Your task to perform on an android device: open app "Duolingo: language lessons" Image 0: 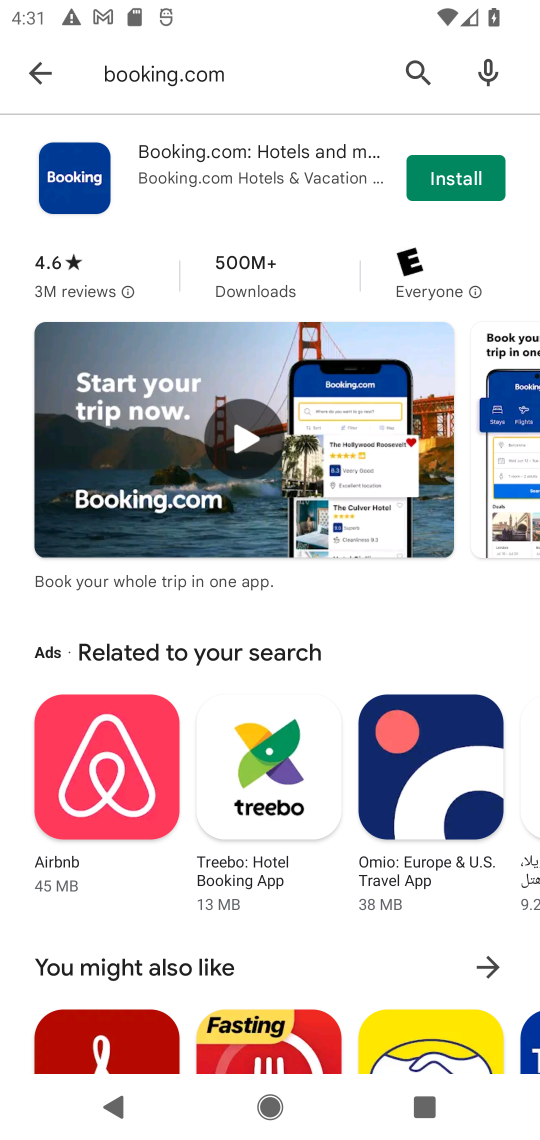
Step 0: press home button
Your task to perform on an android device: open app "Duolingo: language lessons" Image 1: 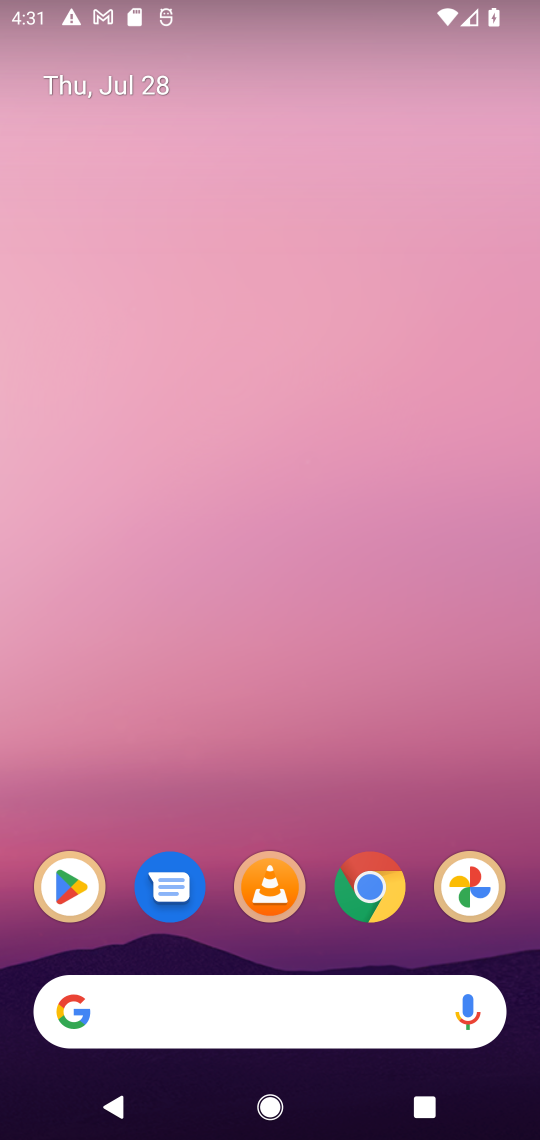
Step 1: click (53, 884)
Your task to perform on an android device: open app "Duolingo: language lessons" Image 2: 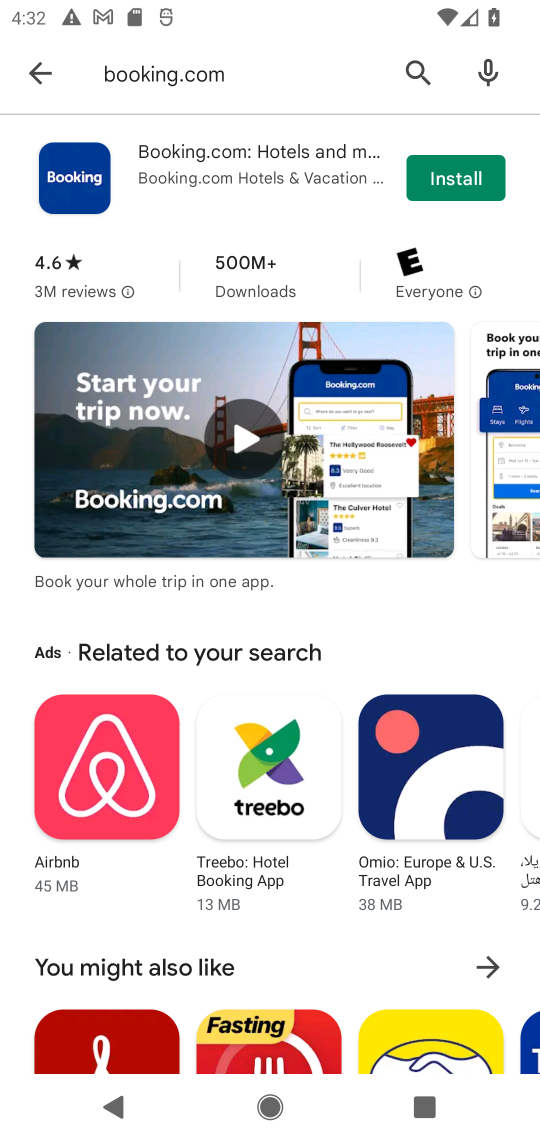
Step 2: click (28, 60)
Your task to perform on an android device: open app "Duolingo: language lessons" Image 3: 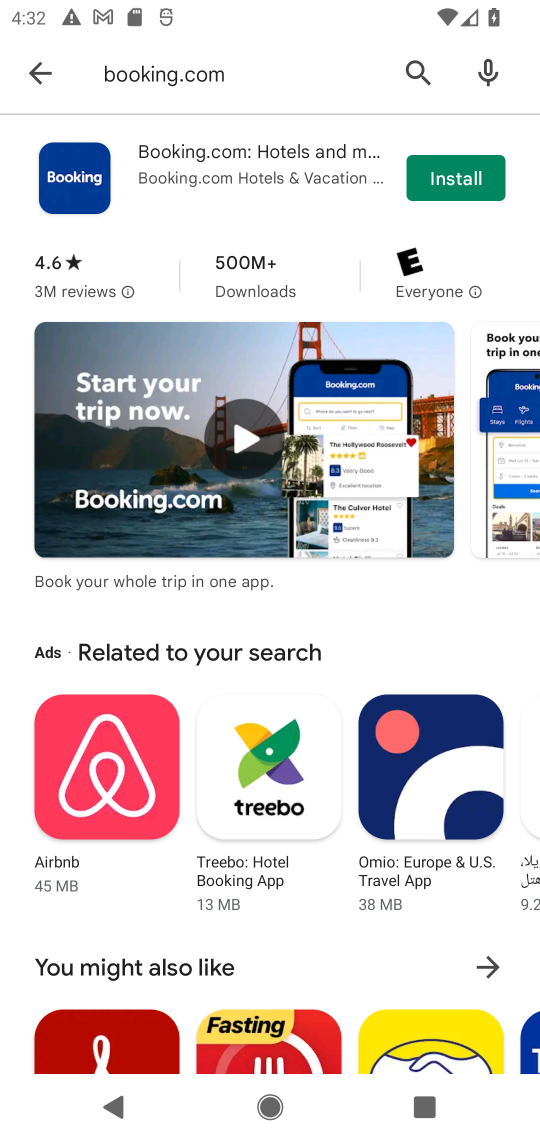
Step 3: click (202, 67)
Your task to perform on an android device: open app "Duolingo: language lessons" Image 4: 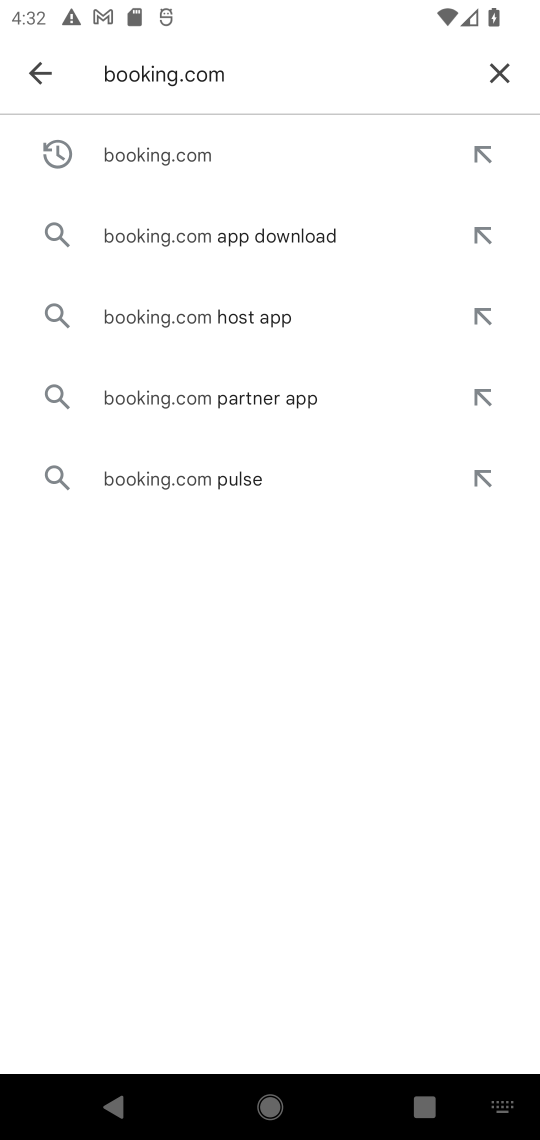
Step 4: click (499, 78)
Your task to perform on an android device: open app "Duolingo: language lessons" Image 5: 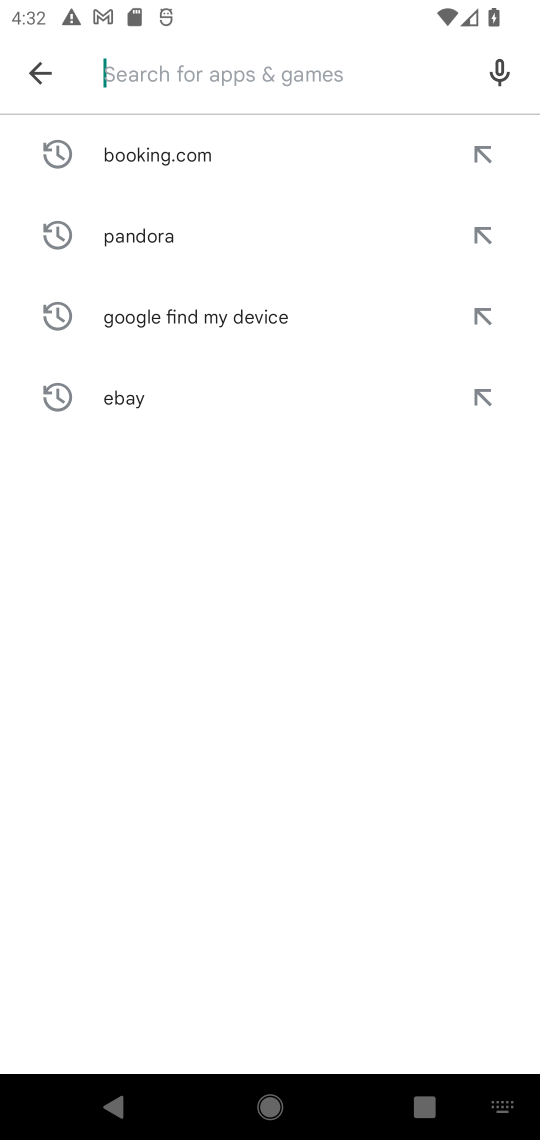
Step 5: type "Duolingo"
Your task to perform on an android device: open app "Duolingo: language lessons" Image 6: 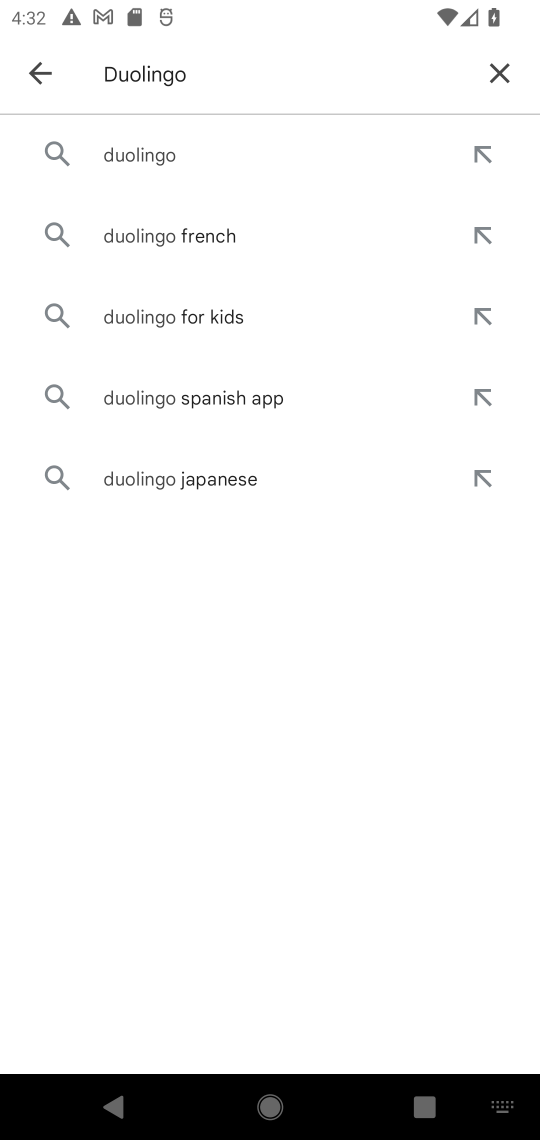
Step 6: click (161, 171)
Your task to perform on an android device: open app "Duolingo: language lessons" Image 7: 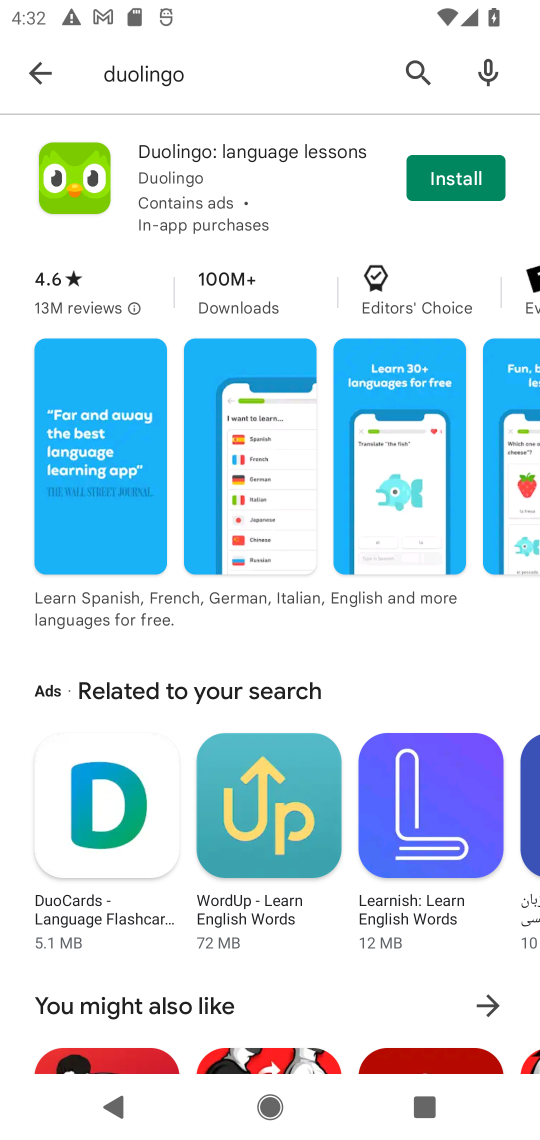
Step 7: task complete